Your task to perform on an android device: Open internet settings Image 0: 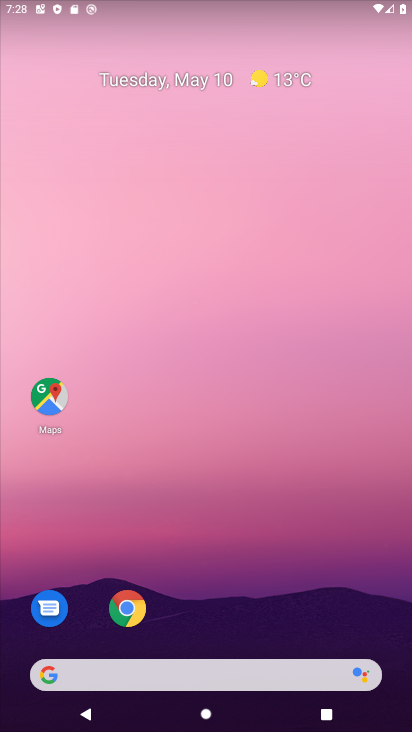
Step 0: drag from (188, 610) to (224, 246)
Your task to perform on an android device: Open internet settings Image 1: 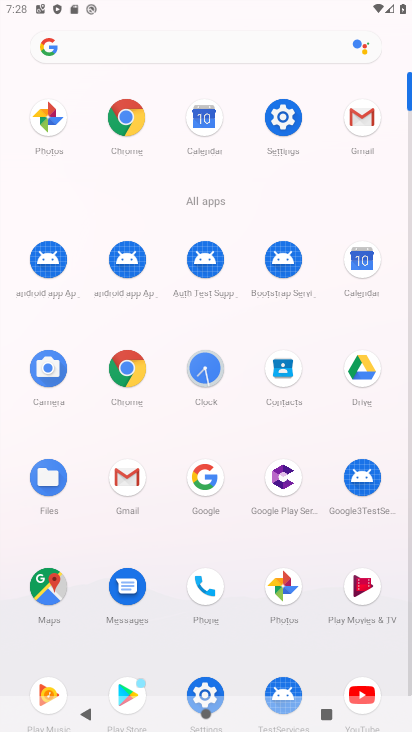
Step 1: click (286, 146)
Your task to perform on an android device: Open internet settings Image 2: 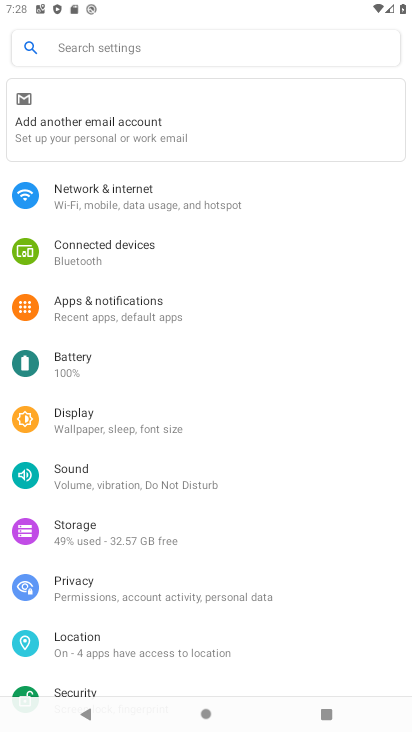
Step 2: click (132, 211)
Your task to perform on an android device: Open internet settings Image 3: 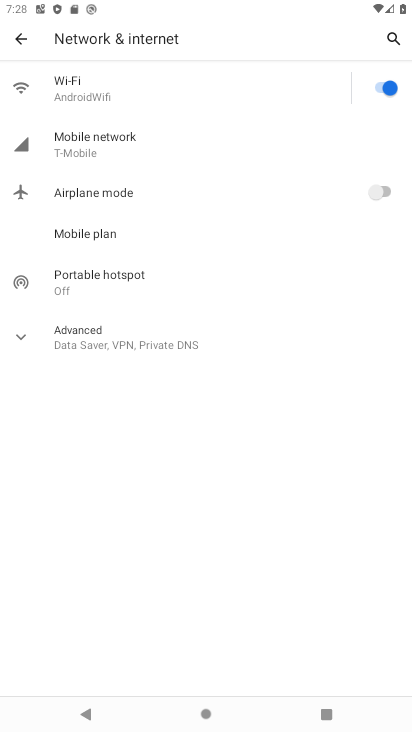
Step 3: task complete